Your task to perform on an android device: Go to eBay Image 0: 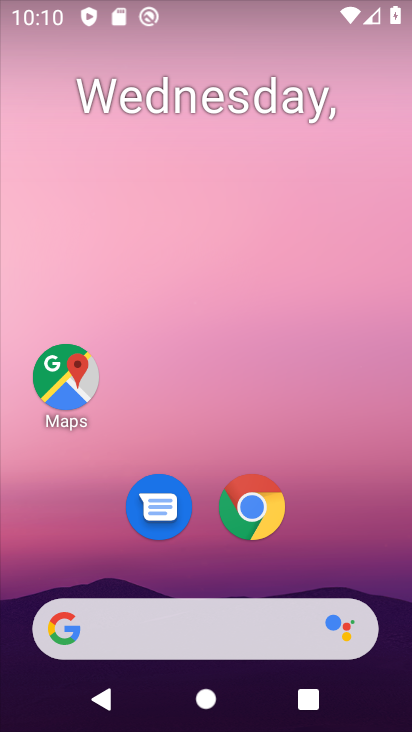
Step 0: drag from (336, 506) to (344, 232)
Your task to perform on an android device: Go to eBay Image 1: 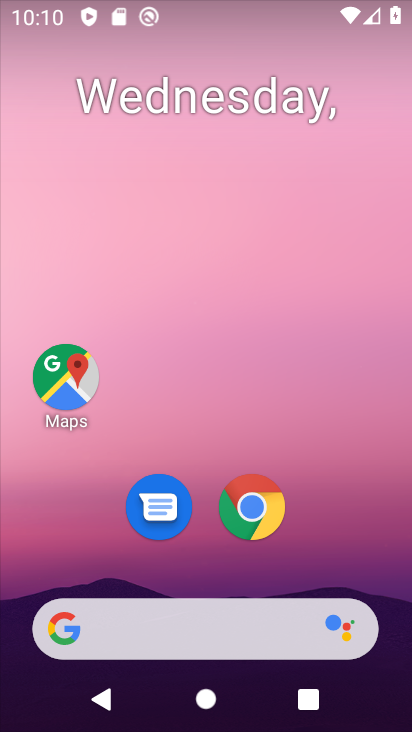
Step 1: click (265, 507)
Your task to perform on an android device: Go to eBay Image 2: 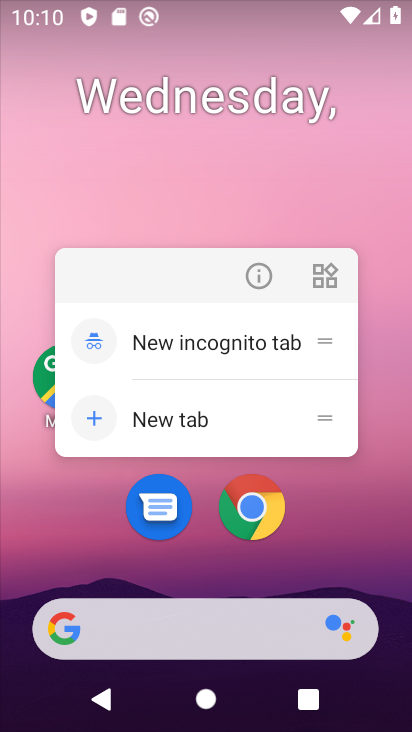
Step 2: click (258, 498)
Your task to perform on an android device: Go to eBay Image 3: 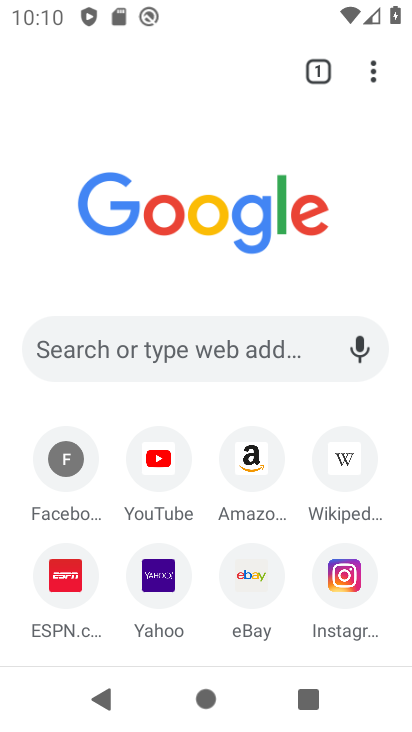
Step 3: click (244, 573)
Your task to perform on an android device: Go to eBay Image 4: 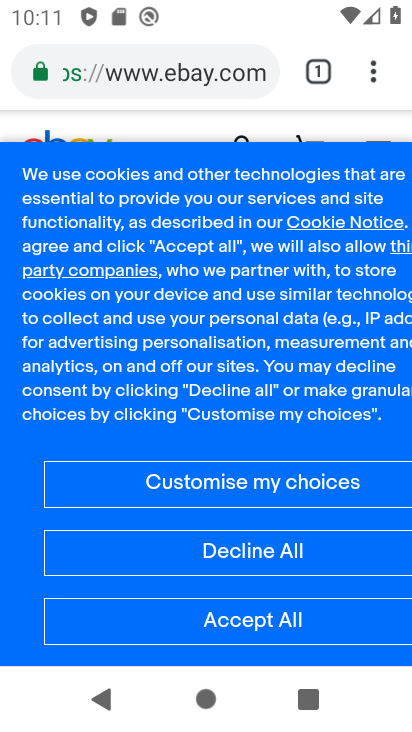
Step 4: task complete